Your task to perform on an android device: Open wifi settings Image 0: 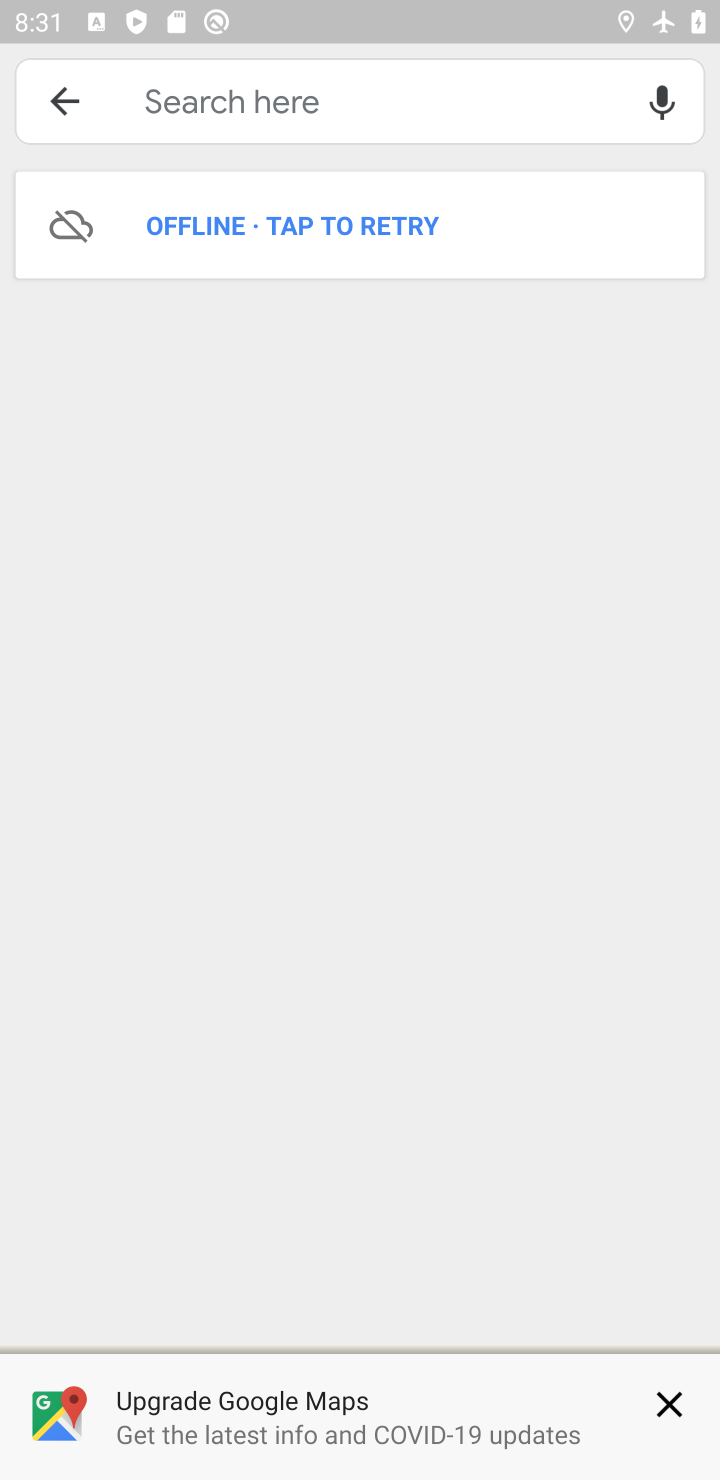
Step 0: drag from (462, 4) to (389, 540)
Your task to perform on an android device: Open wifi settings Image 1: 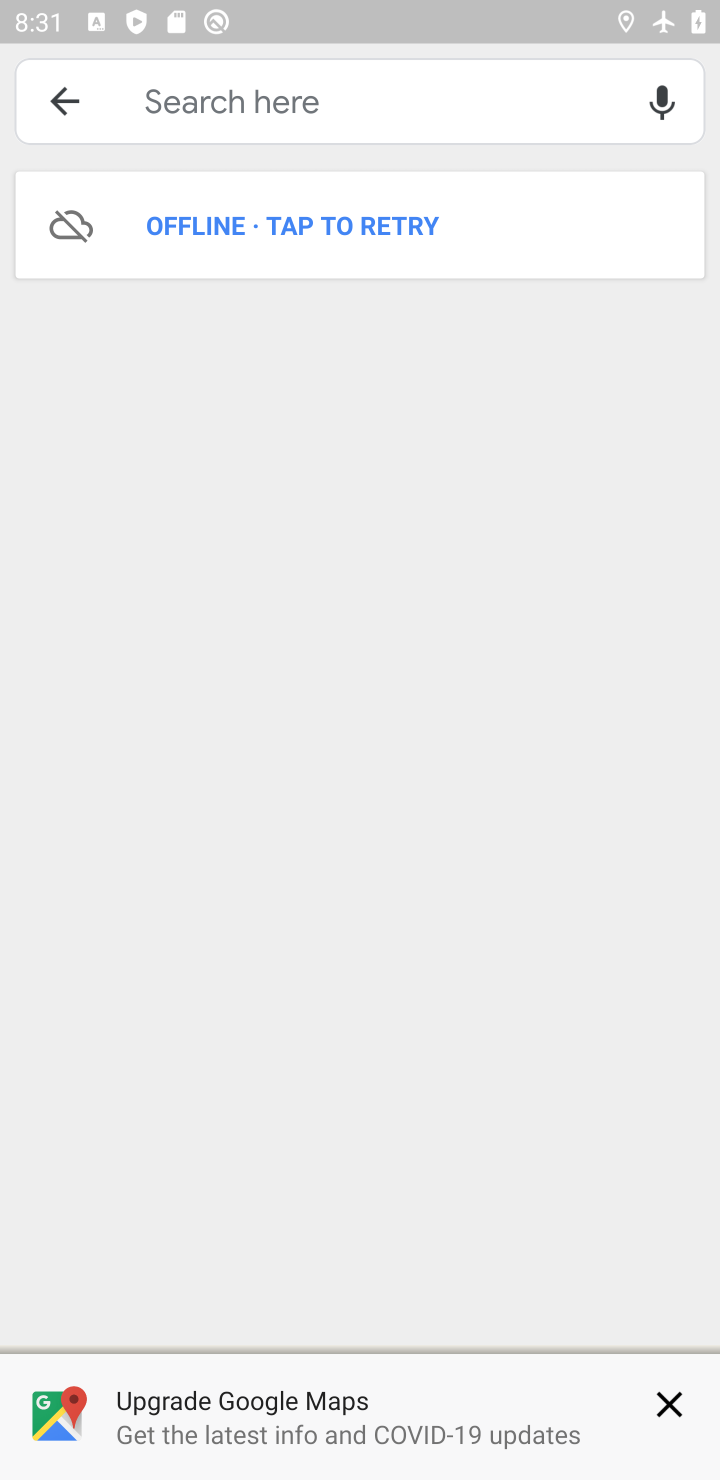
Step 1: drag from (292, 23) to (233, 544)
Your task to perform on an android device: Open wifi settings Image 2: 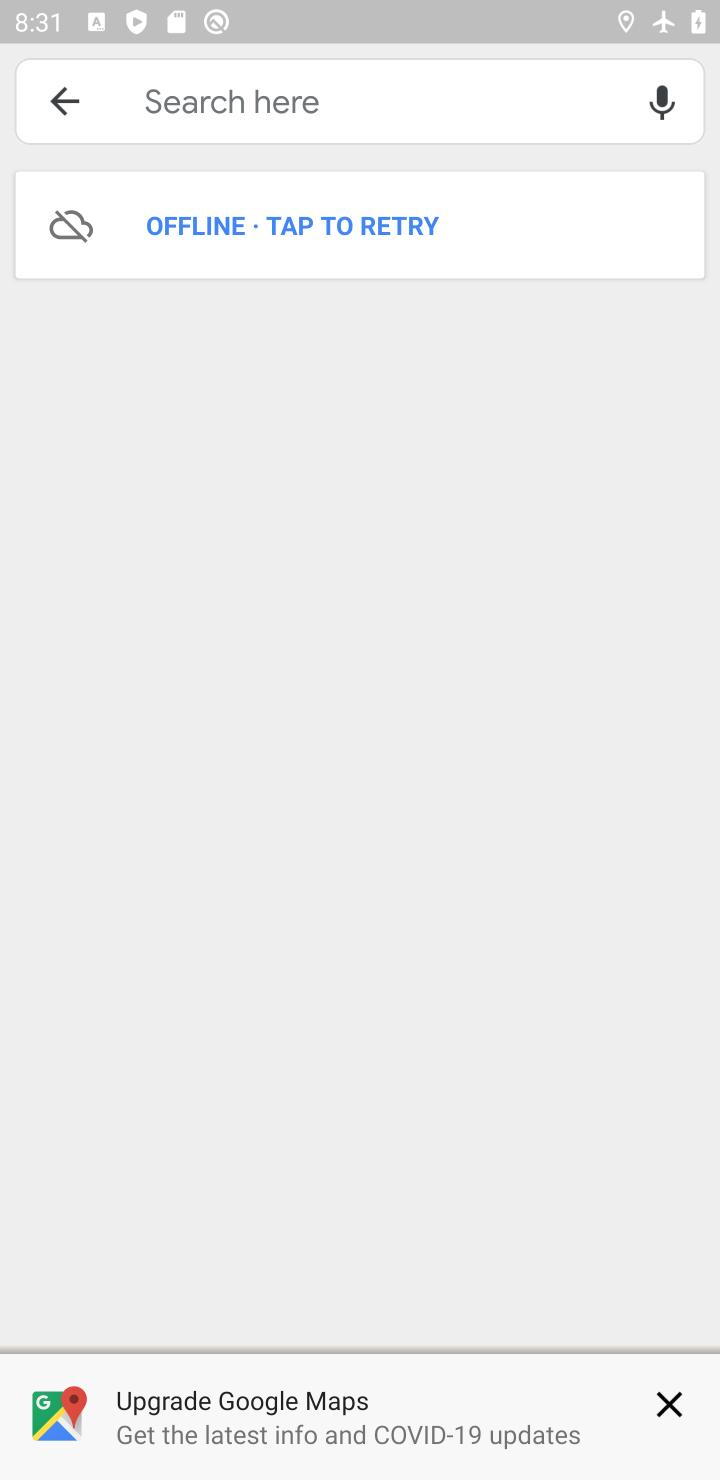
Step 2: drag from (84, 202) to (219, 610)
Your task to perform on an android device: Open wifi settings Image 3: 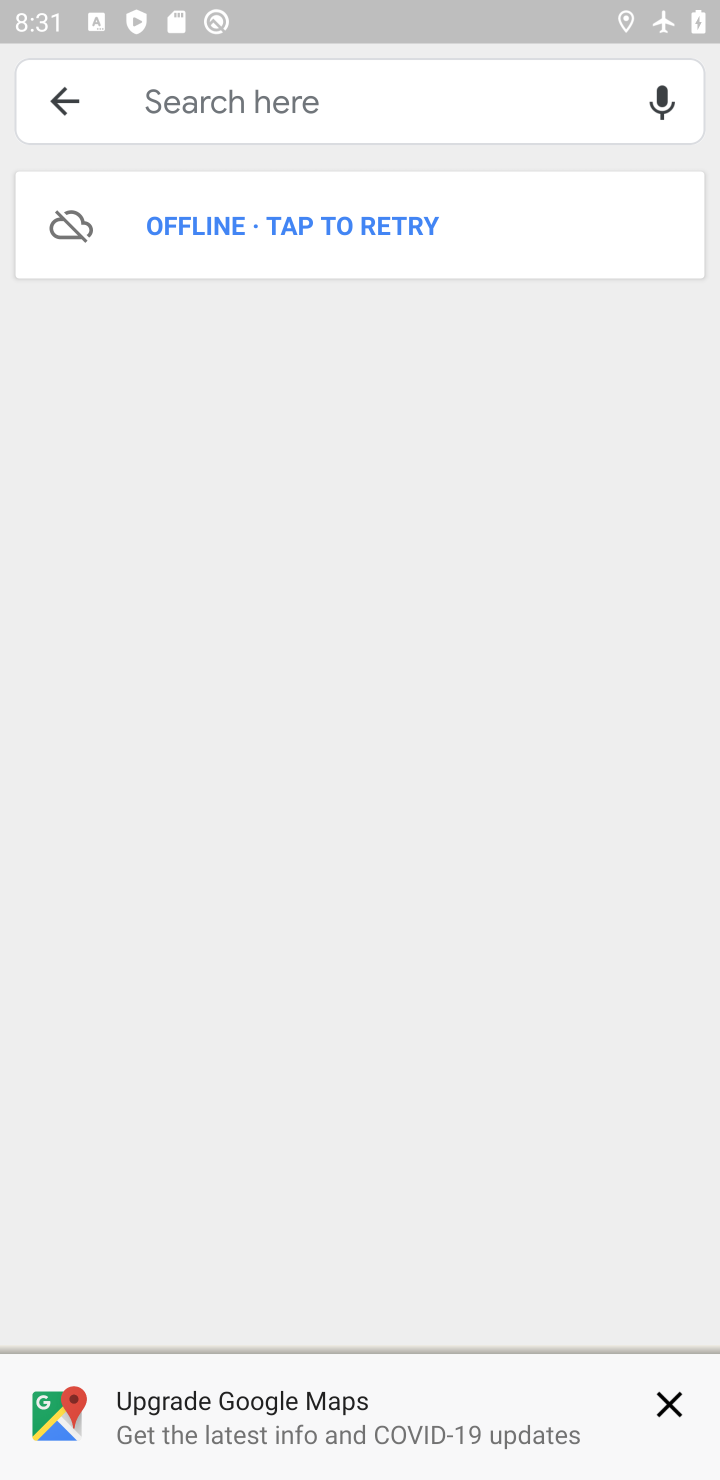
Step 3: drag from (371, 19) to (333, 963)
Your task to perform on an android device: Open wifi settings Image 4: 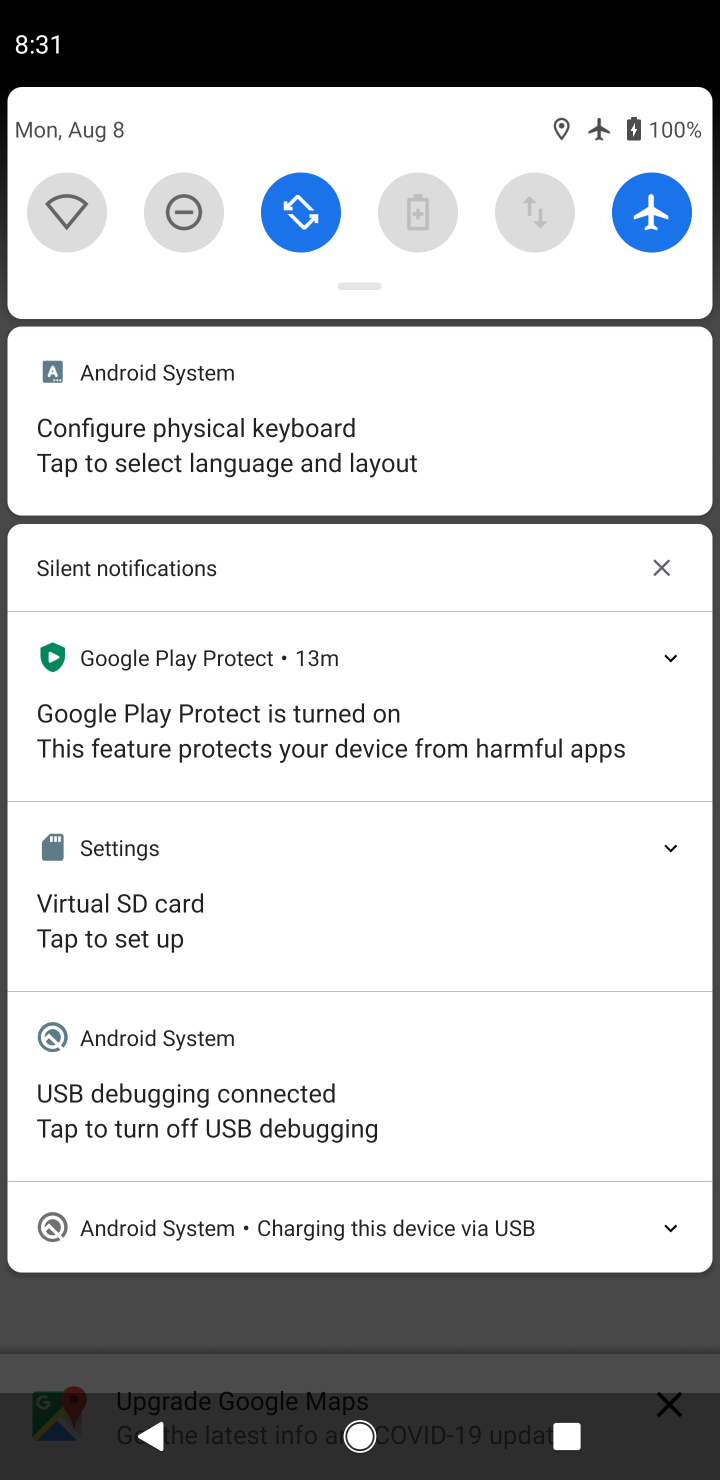
Step 4: click (76, 208)
Your task to perform on an android device: Open wifi settings Image 5: 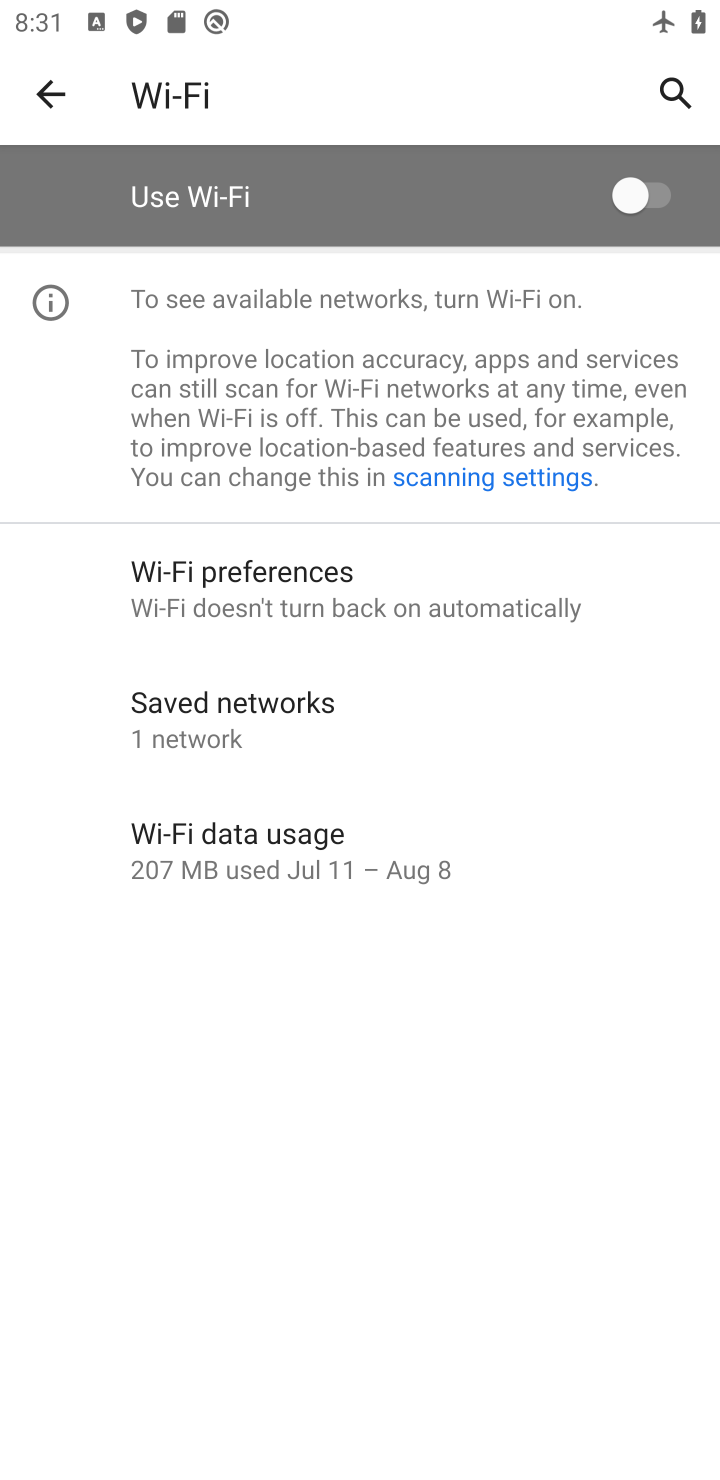
Step 5: task complete